Your task to perform on an android device: change your default location settings in chrome Image 0: 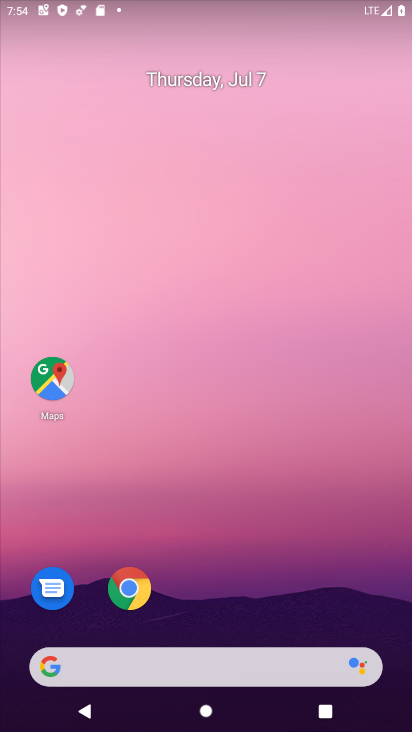
Step 0: drag from (298, 576) to (299, 122)
Your task to perform on an android device: change your default location settings in chrome Image 1: 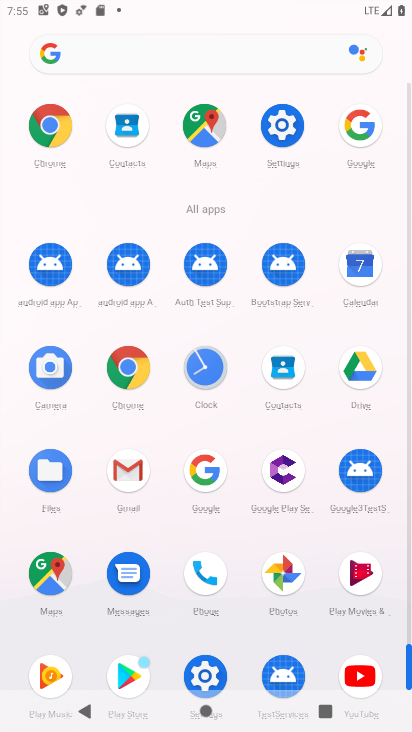
Step 1: click (48, 129)
Your task to perform on an android device: change your default location settings in chrome Image 2: 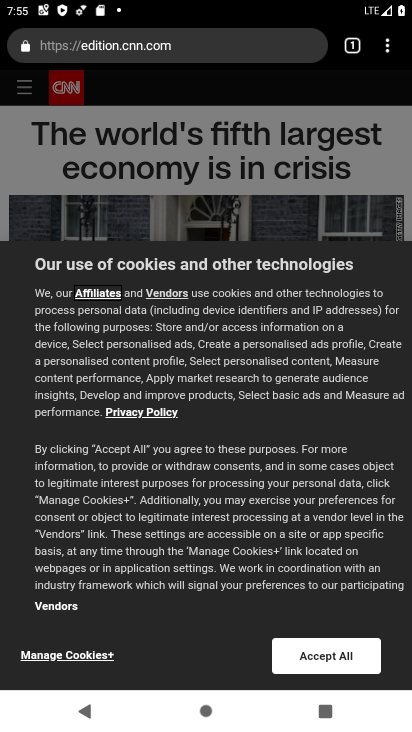
Step 2: click (386, 39)
Your task to perform on an android device: change your default location settings in chrome Image 3: 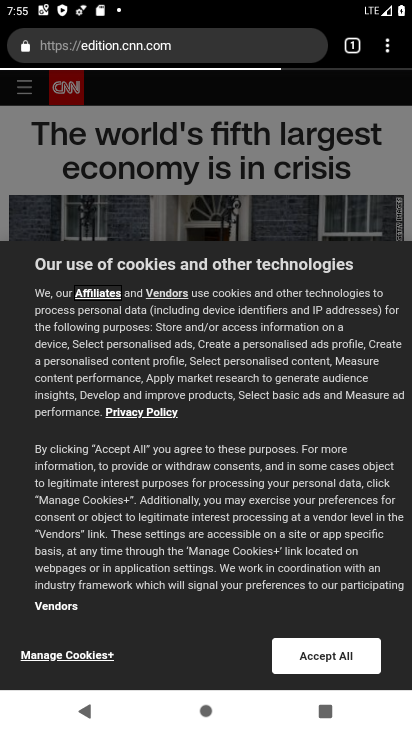
Step 3: click (390, 40)
Your task to perform on an android device: change your default location settings in chrome Image 4: 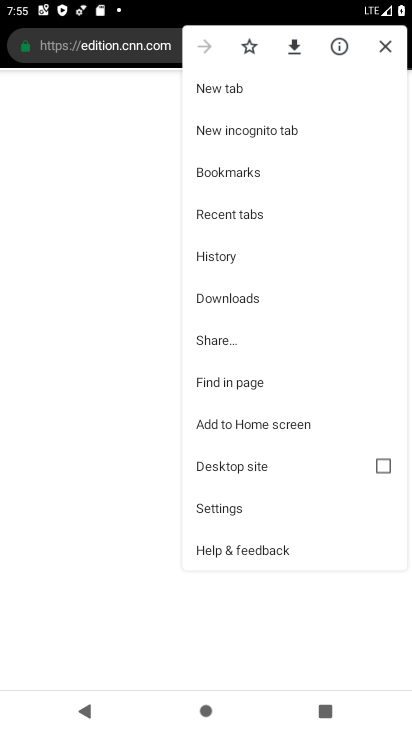
Step 4: click (234, 502)
Your task to perform on an android device: change your default location settings in chrome Image 5: 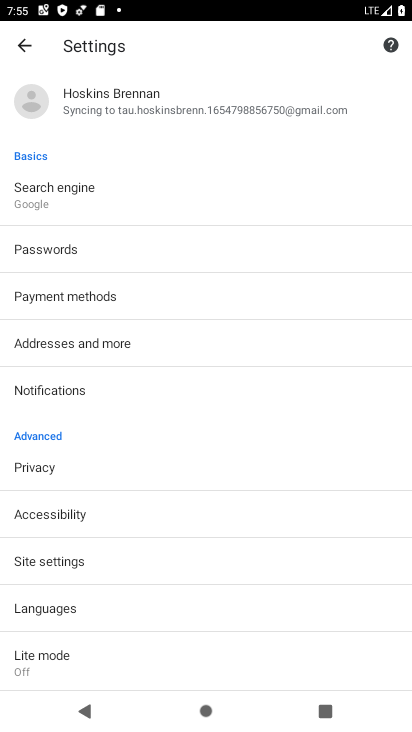
Step 5: drag from (133, 591) to (188, 205)
Your task to perform on an android device: change your default location settings in chrome Image 6: 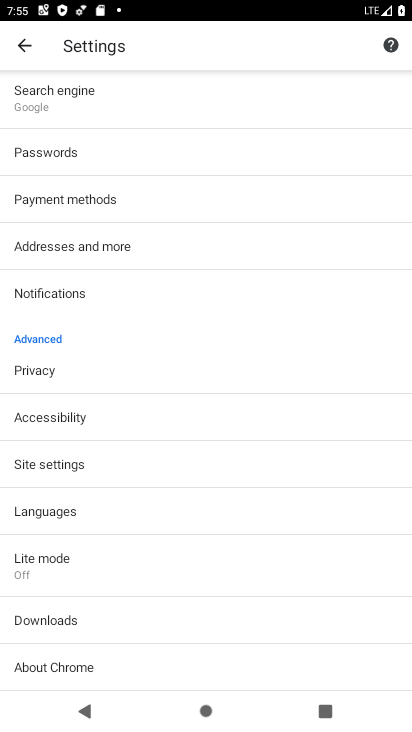
Step 6: click (60, 463)
Your task to perform on an android device: change your default location settings in chrome Image 7: 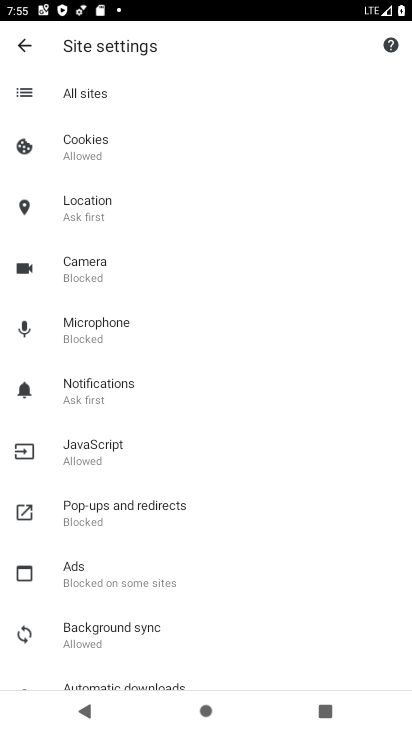
Step 7: click (83, 202)
Your task to perform on an android device: change your default location settings in chrome Image 8: 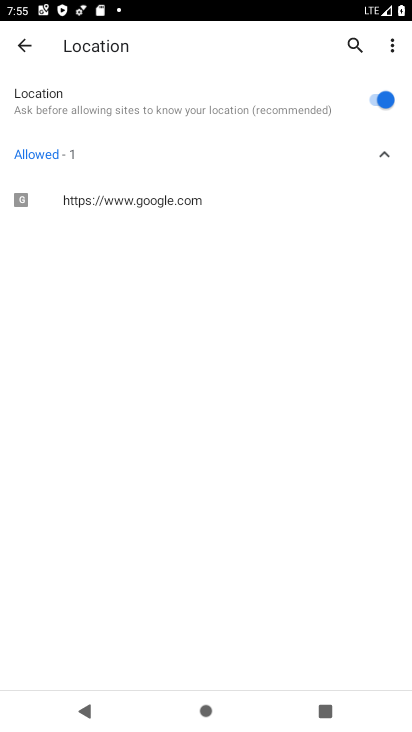
Step 8: click (385, 98)
Your task to perform on an android device: change your default location settings in chrome Image 9: 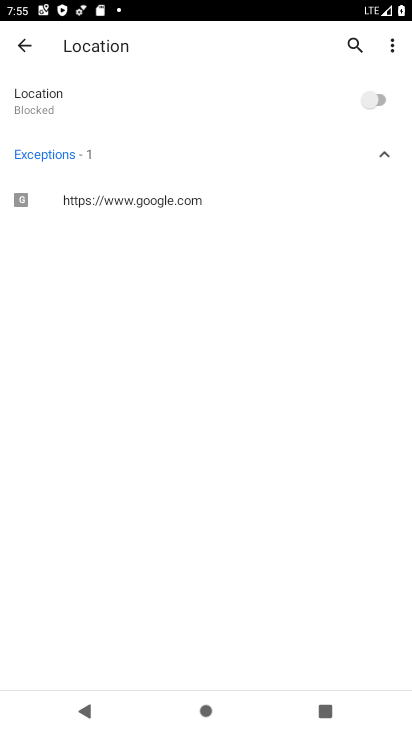
Step 9: task complete